Your task to perform on an android device: turn on airplane mode Image 0: 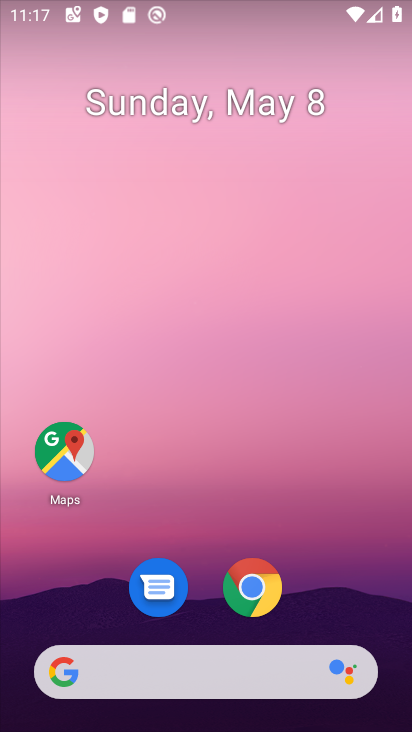
Step 0: drag from (319, 481) to (84, 18)
Your task to perform on an android device: turn on airplane mode Image 1: 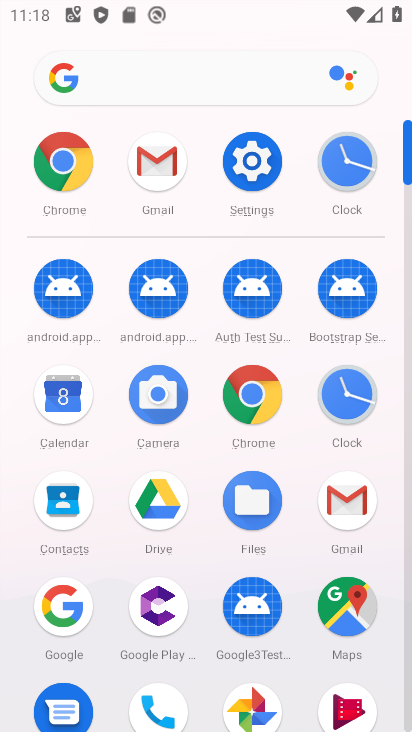
Step 1: click (269, 163)
Your task to perform on an android device: turn on airplane mode Image 2: 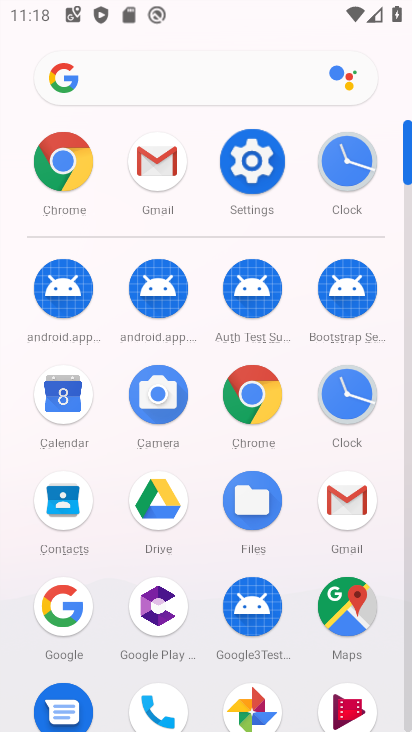
Step 2: click (235, 166)
Your task to perform on an android device: turn on airplane mode Image 3: 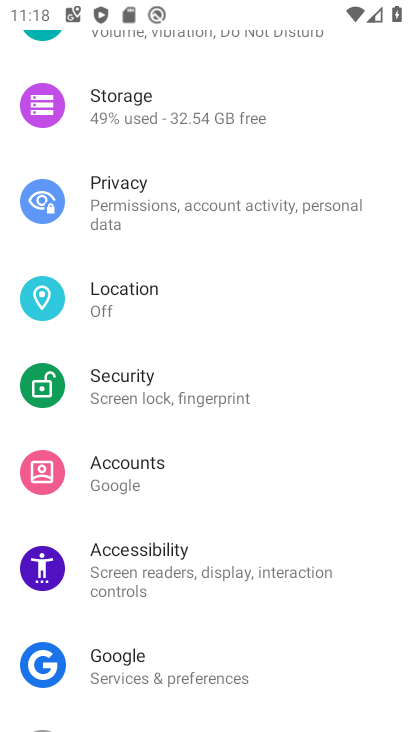
Step 3: drag from (97, 198) to (183, 467)
Your task to perform on an android device: turn on airplane mode Image 4: 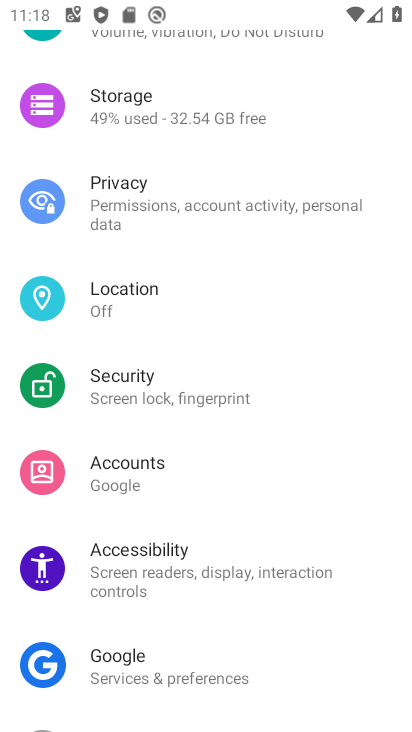
Step 4: click (202, 478)
Your task to perform on an android device: turn on airplane mode Image 5: 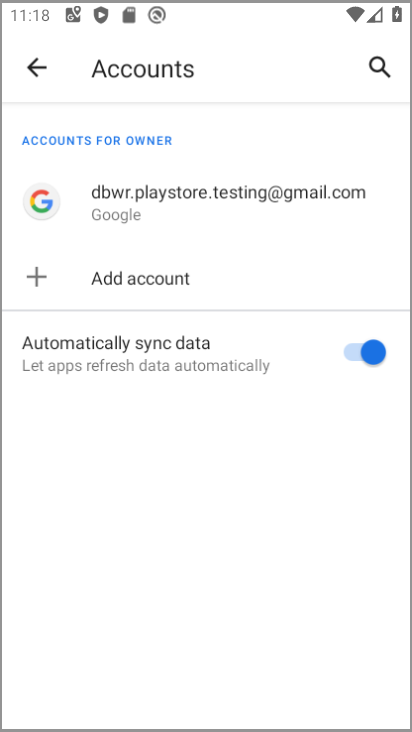
Step 5: drag from (232, 395) to (192, 366)
Your task to perform on an android device: turn on airplane mode Image 6: 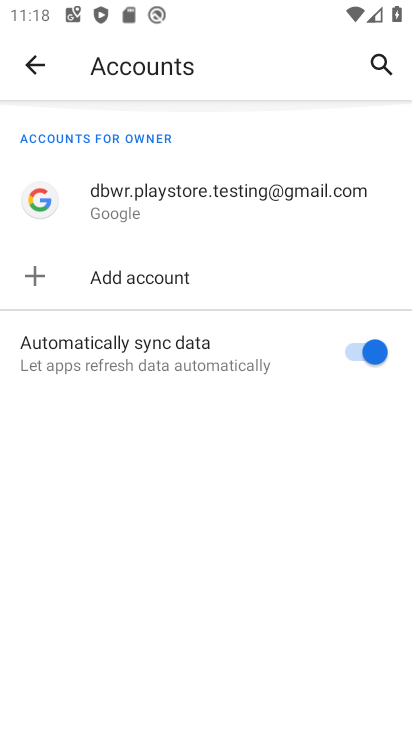
Step 6: click (127, 365)
Your task to perform on an android device: turn on airplane mode Image 7: 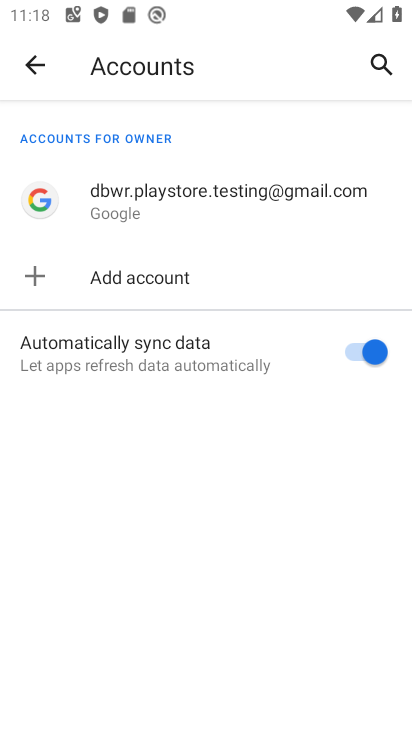
Step 7: click (236, 528)
Your task to perform on an android device: turn on airplane mode Image 8: 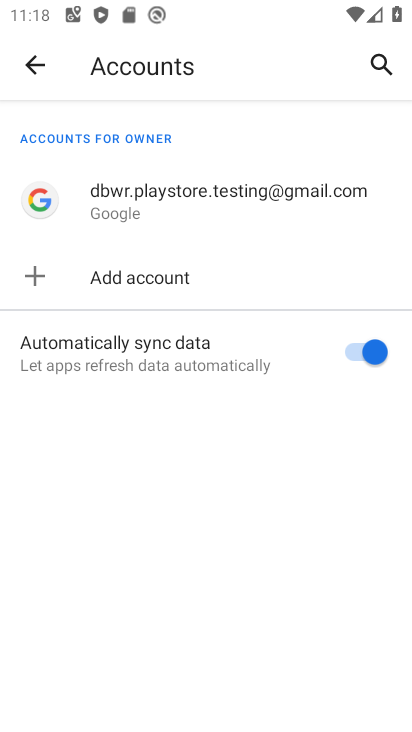
Step 8: click (37, 67)
Your task to perform on an android device: turn on airplane mode Image 9: 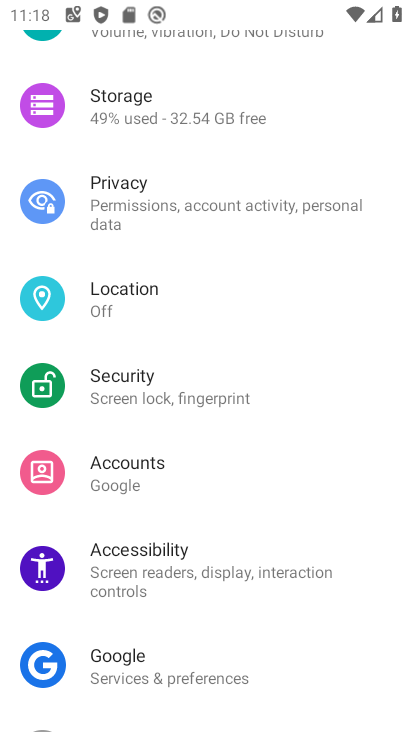
Step 9: drag from (166, 153) to (196, 558)
Your task to perform on an android device: turn on airplane mode Image 10: 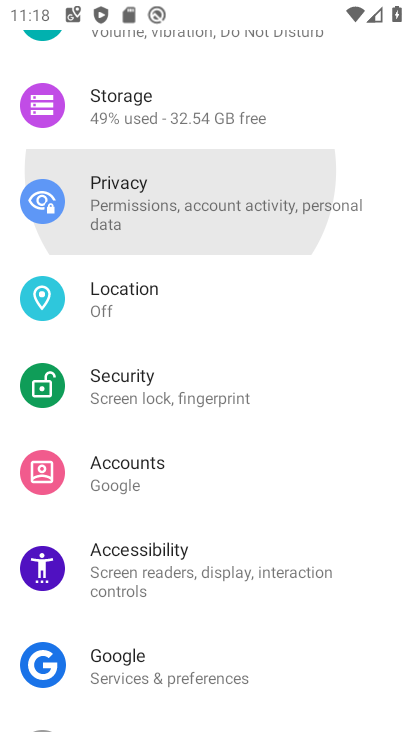
Step 10: drag from (220, 71) to (208, 484)
Your task to perform on an android device: turn on airplane mode Image 11: 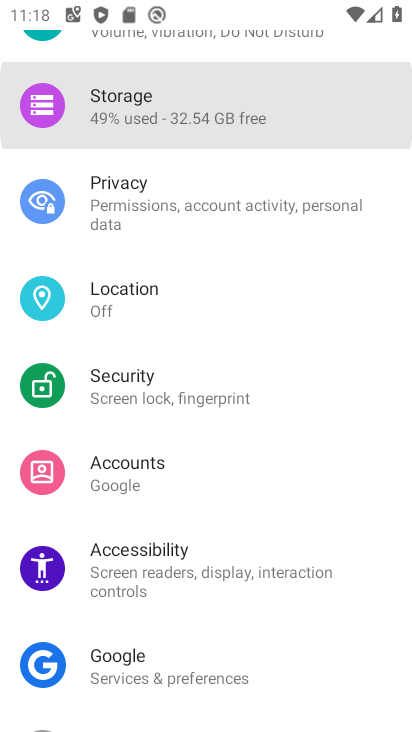
Step 11: drag from (179, 121) to (191, 444)
Your task to perform on an android device: turn on airplane mode Image 12: 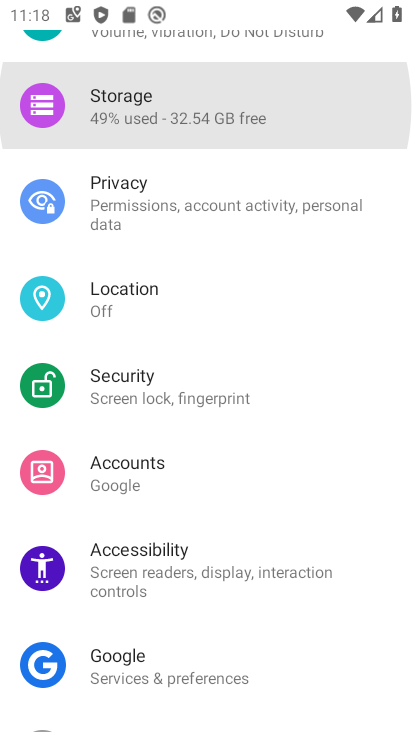
Step 12: drag from (106, 161) to (290, 557)
Your task to perform on an android device: turn on airplane mode Image 13: 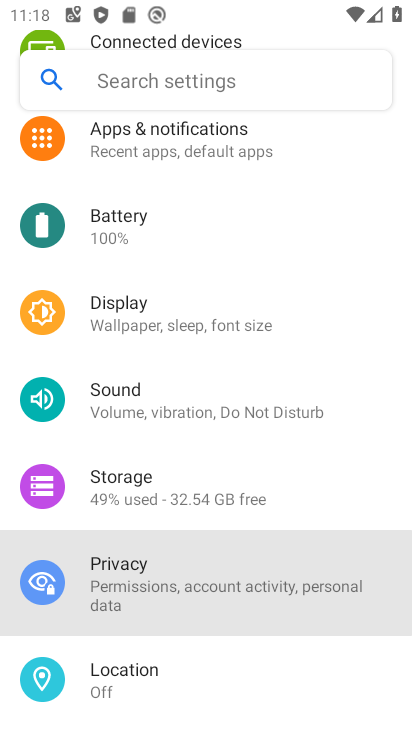
Step 13: drag from (166, 129) to (265, 528)
Your task to perform on an android device: turn on airplane mode Image 14: 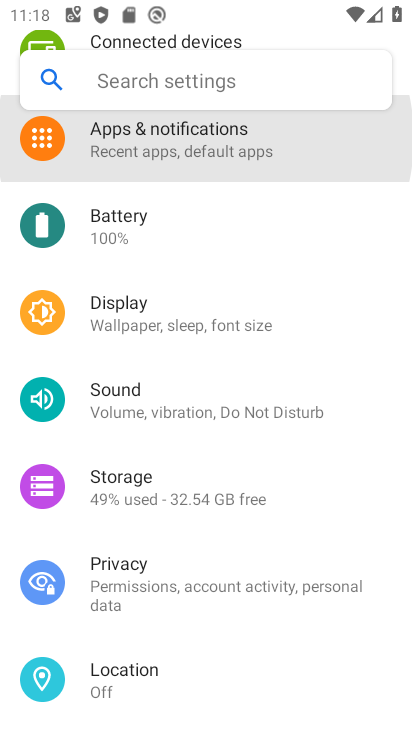
Step 14: drag from (230, 141) to (335, 416)
Your task to perform on an android device: turn on airplane mode Image 15: 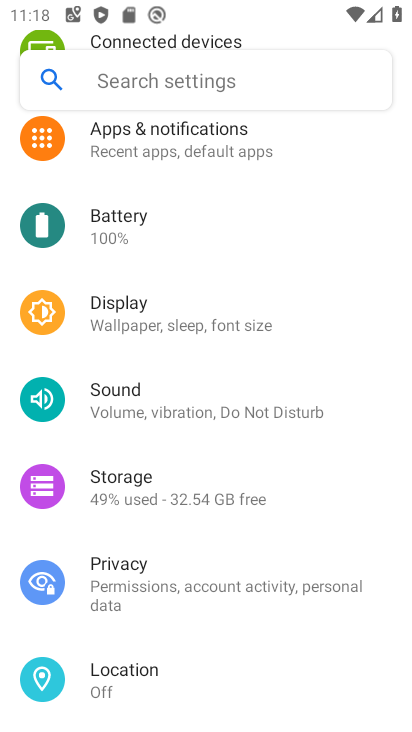
Step 15: drag from (219, 50) to (260, 611)
Your task to perform on an android device: turn on airplane mode Image 16: 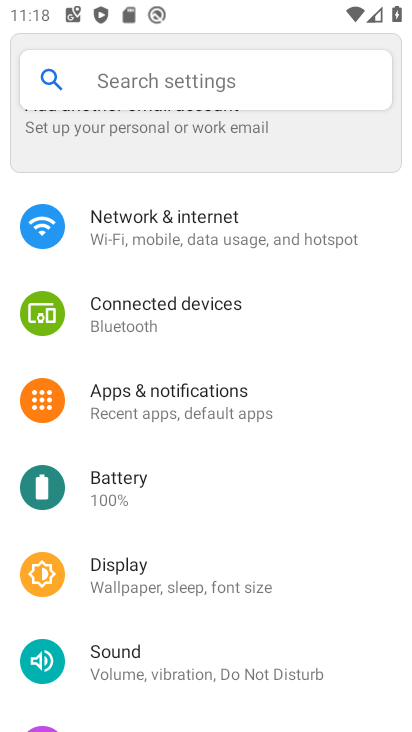
Step 16: drag from (147, 213) to (250, 506)
Your task to perform on an android device: turn on airplane mode Image 17: 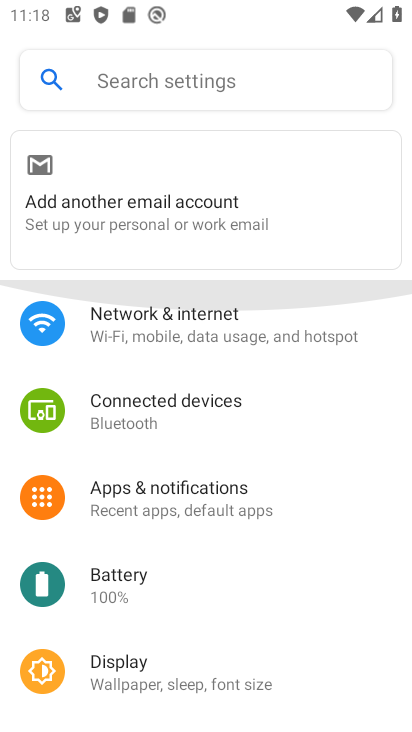
Step 17: drag from (193, 103) to (191, 493)
Your task to perform on an android device: turn on airplane mode Image 18: 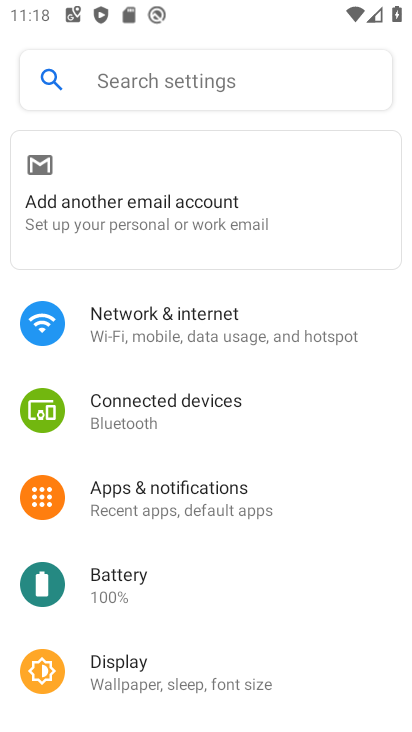
Step 18: click (162, 321)
Your task to perform on an android device: turn on airplane mode Image 19: 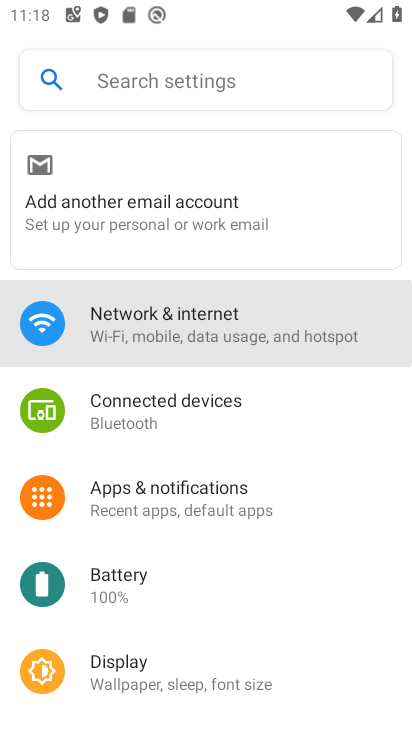
Step 19: click (162, 321)
Your task to perform on an android device: turn on airplane mode Image 20: 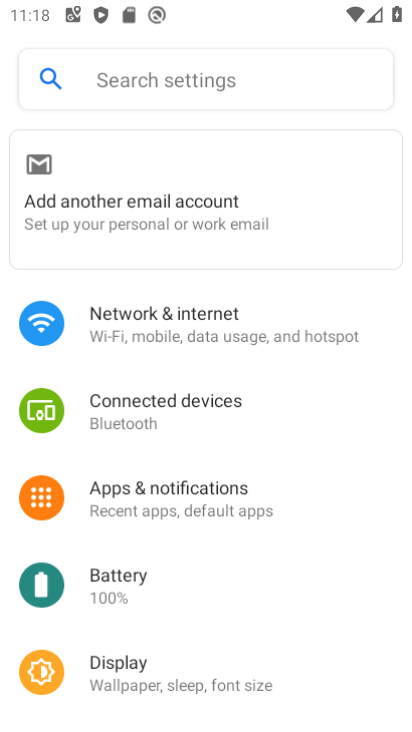
Step 20: click (162, 321)
Your task to perform on an android device: turn on airplane mode Image 21: 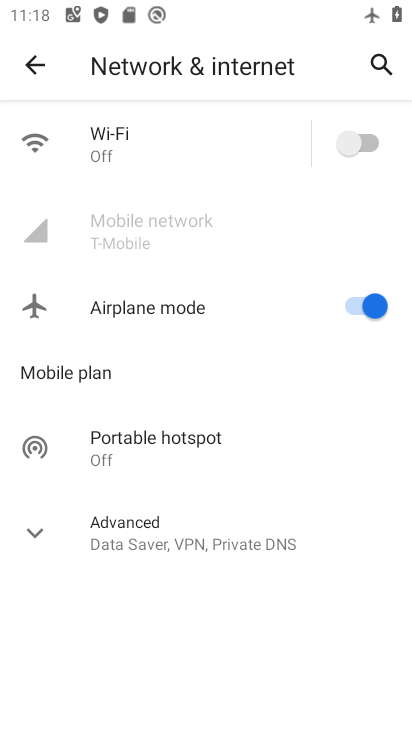
Step 21: task complete